Your task to perform on an android device: What's the weather? Image 0: 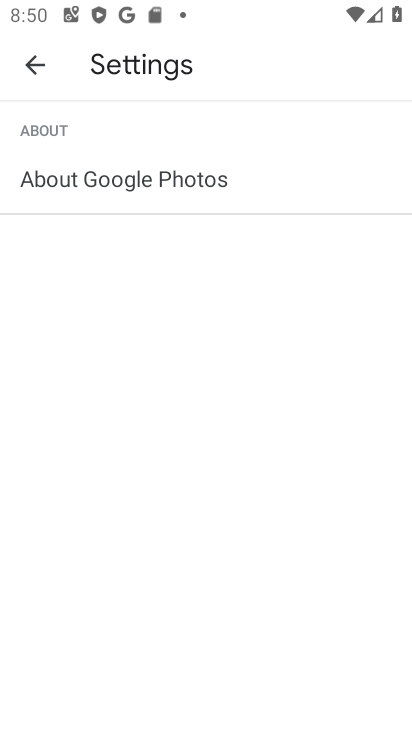
Step 0: press home button
Your task to perform on an android device: What's the weather? Image 1: 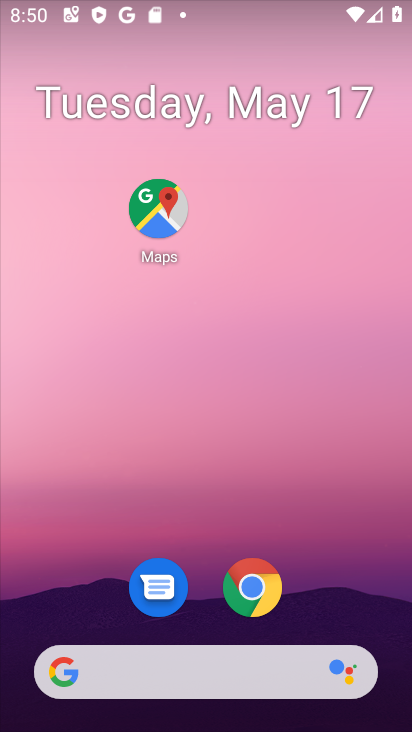
Step 1: click (129, 682)
Your task to perform on an android device: What's the weather? Image 2: 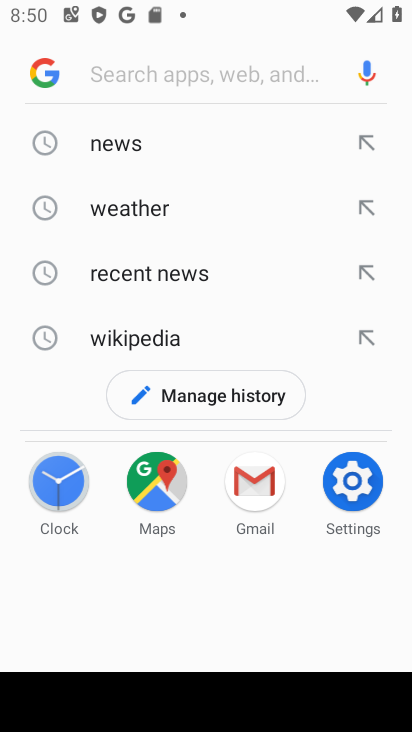
Step 2: click (136, 199)
Your task to perform on an android device: What's the weather? Image 3: 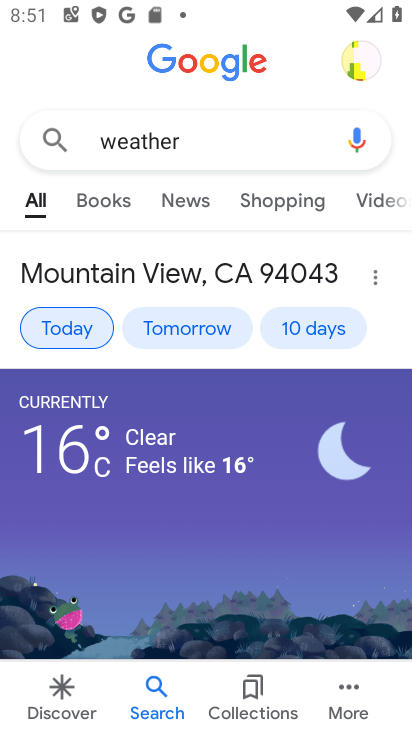
Step 3: task complete